Your task to perform on an android device: Go to notification settings Image 0: 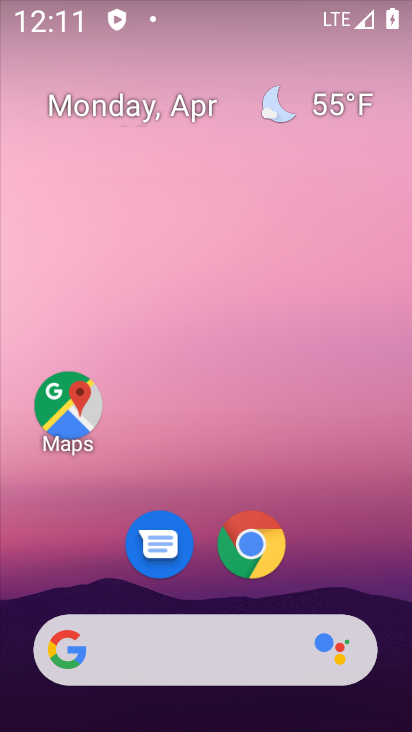
Step 0: press home button
Your task to perform on an android device: Go to notification settings Image 1: 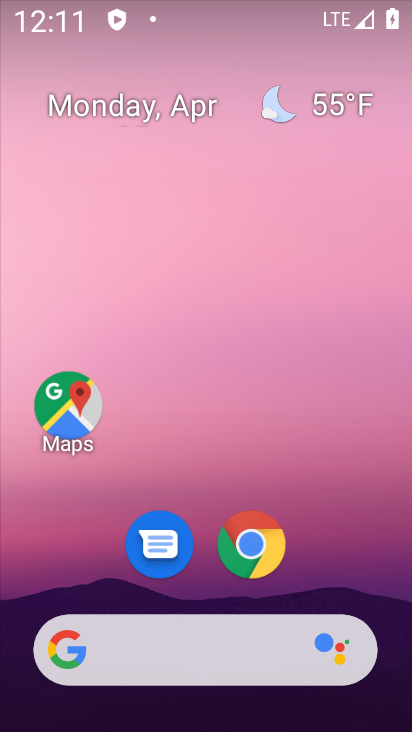
Step 1: drag from (332, 534) to (143, 75)
Your task to perform on an android device: Go to notification settings Image 2: 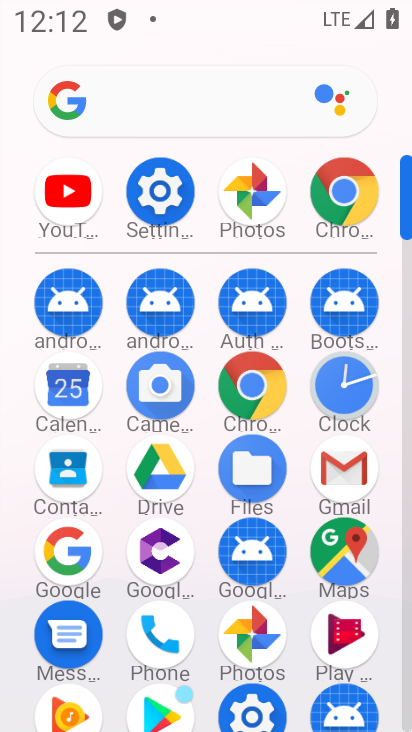
Step 2: click (158, 197)
Your task to perform on an android device: Go to notification settings Image 3: 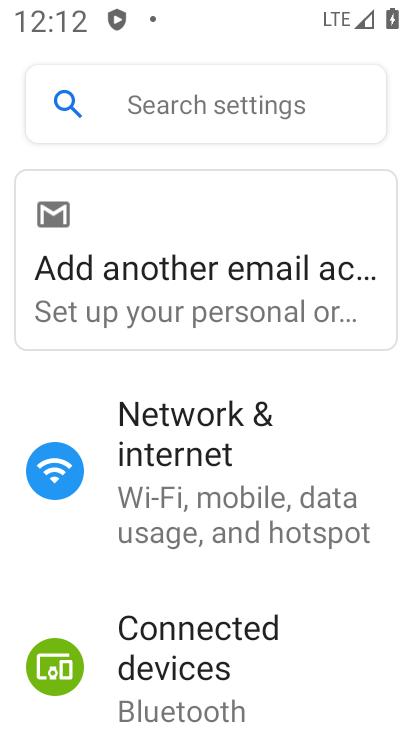
Step 3: drag from (262, 657) to (147, 160)
Your task to perform on an android device: Go to notification settings Image 4: 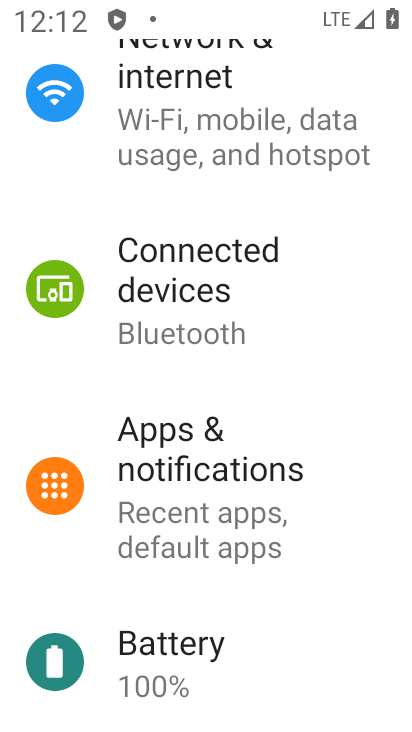
Step 4: click (158, 512)
Your task to perform on an android device: Go to notification settings Image 5: 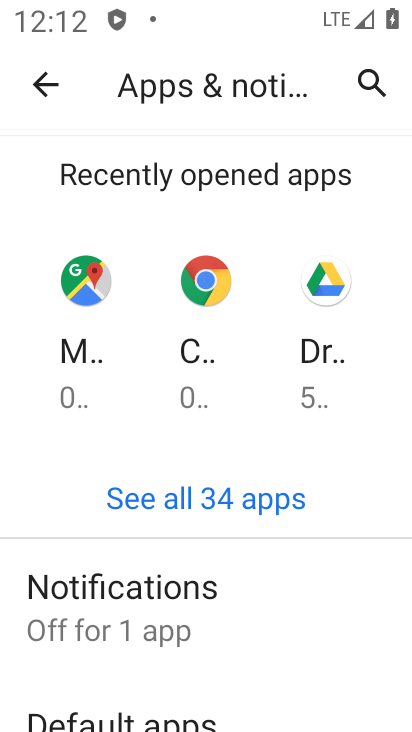
Step 5: drag from (291, 626) to (240, 259)
Your task to perform on an android device: Go to notification settings Image 6: 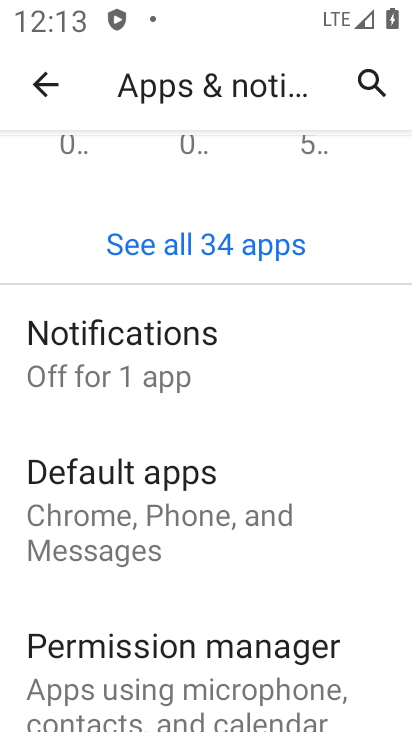
Step 6: drag from (141, 601) to (145, 513)
Your task to perform on an android device: Go to notification settings Image 7: 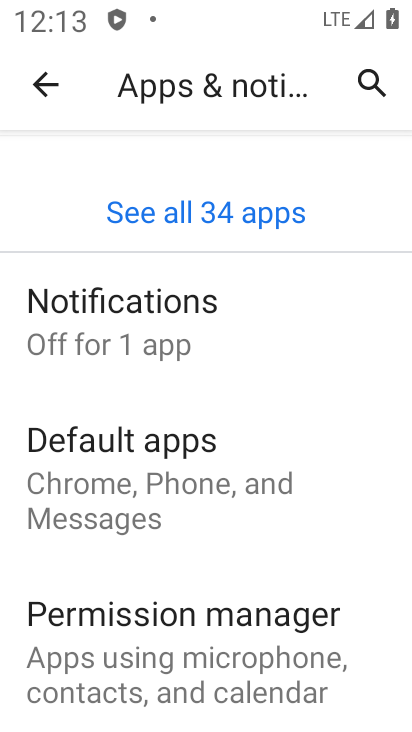
Step 7: click (106, 346)
Your task to perform on an android device: Go to notification settings Image 8: 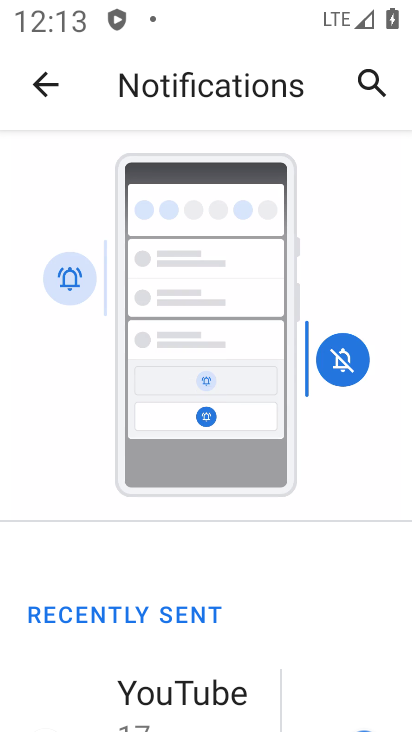
Step 8: drag from (194, 545) to (202, 145)
Your task to perform on an android device: Go to notification settings Image 9: 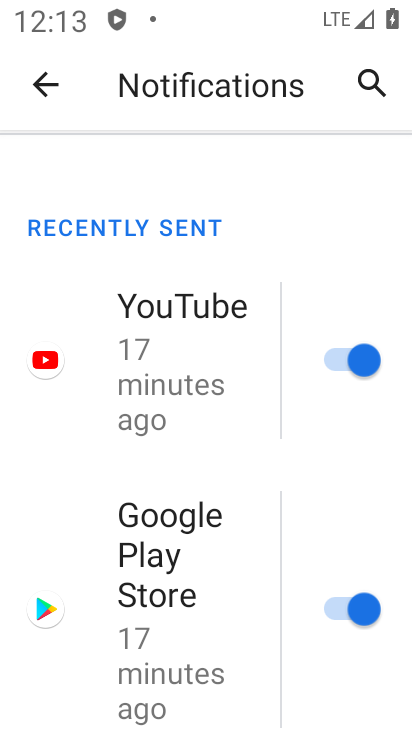
Step 9: drag from (162, 679) to (123, 266)
Your task to perform on an android device: Go to notification settings Image 10: 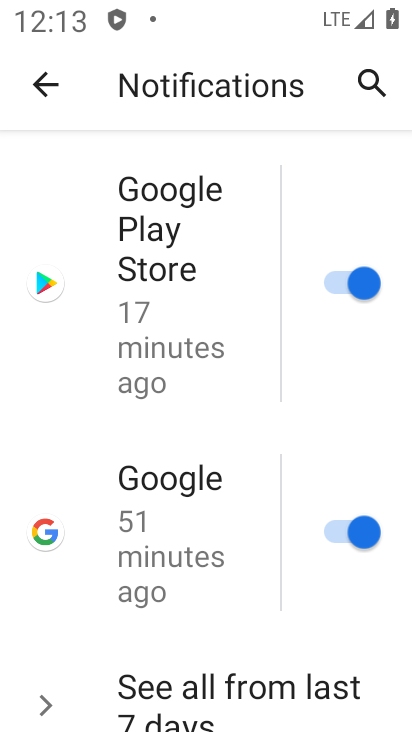
Step 10: drag from (136, 633) to (134, 224)
Your task to perform on an android device: Go to notification settings Image 11: 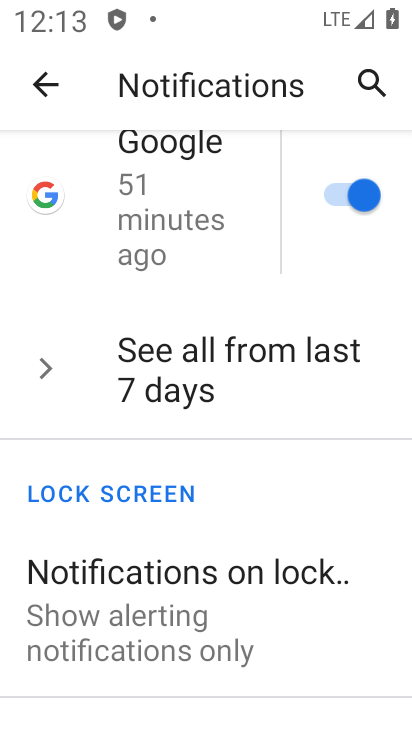
Step 11: drag from (174, 574) to (146, 164)
Your task to perform on an android device: Go to notification settings Image 12: 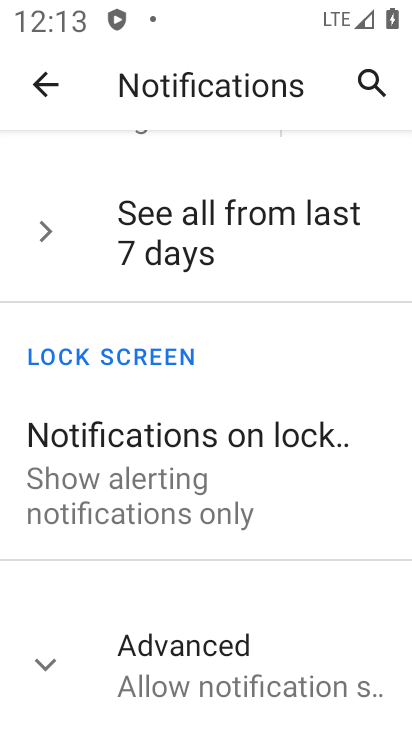
Step 12: click (135, 691)
Your task to perform on an android device: Go to notification settings Image 13: 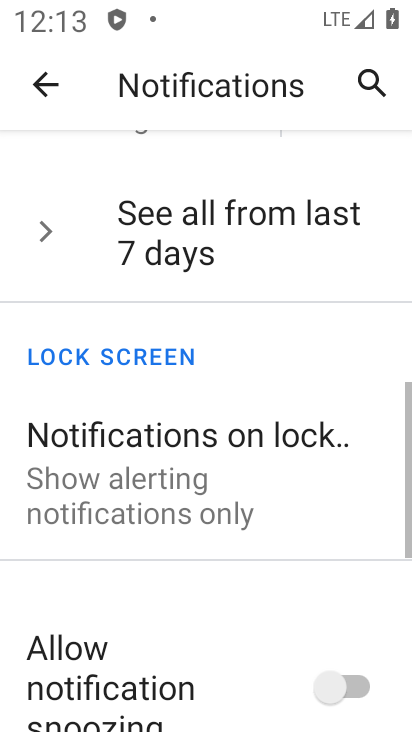
Step 13: task complete